Your task to perform on an android device: Set the phone to "Do not disturb". Image 0: 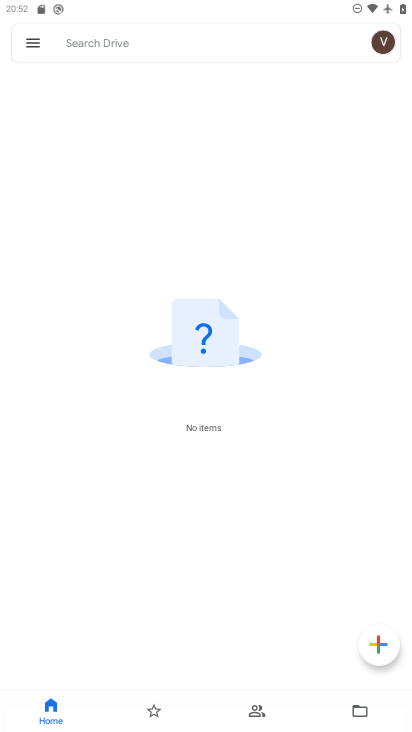
Step 0: press home button
Your task to perform on an android device: Set the phone to "Do not disturb". Image 1: 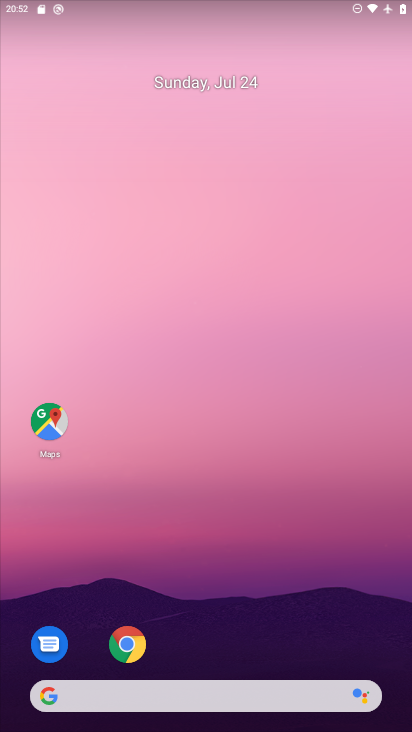
Step 1: drag from (374, 638) to (330, 76)
Your task to perform on an android device: Set the phone to "Do not disturb". Image 2: 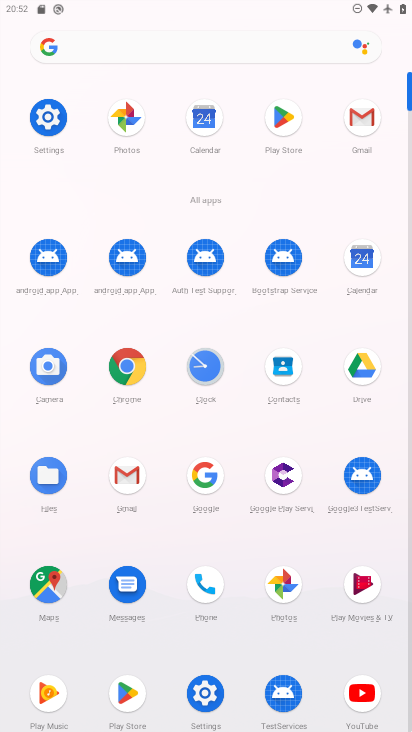
Step 2: click (205, 691)
Your task to perform on an android device: Set the phone to "Do not disturb". Image 3: 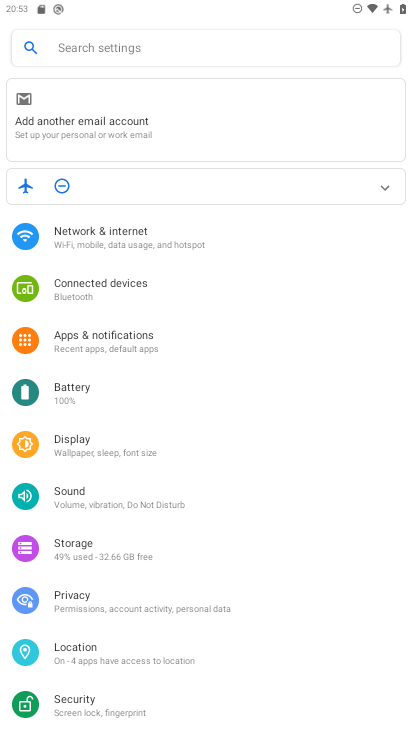
Step 3: click (77, 491)
Your task to perform on an android device: Set the phone to "Do not disturb". Image 4: 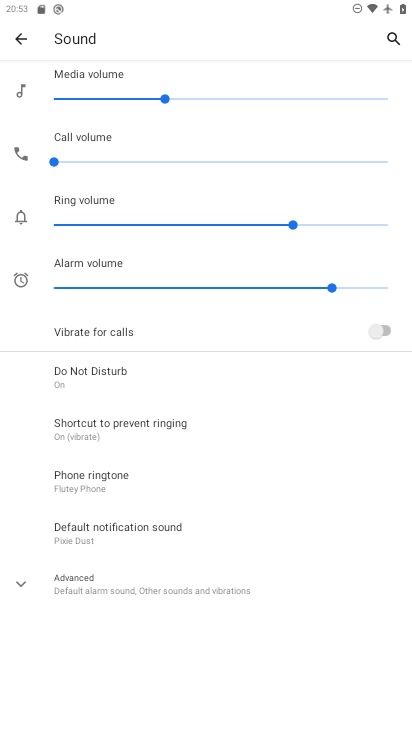
Step 4: click (73, 375)
Your task to perform on an android device: Set the phone to "Do not disturb". Image 5: 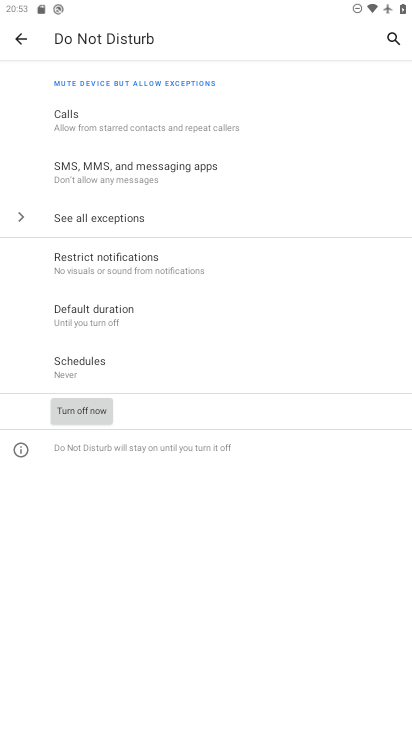
Step 5: task complete